Your task to perform on an android device: find snoozed emails in the gmail app Image 0: 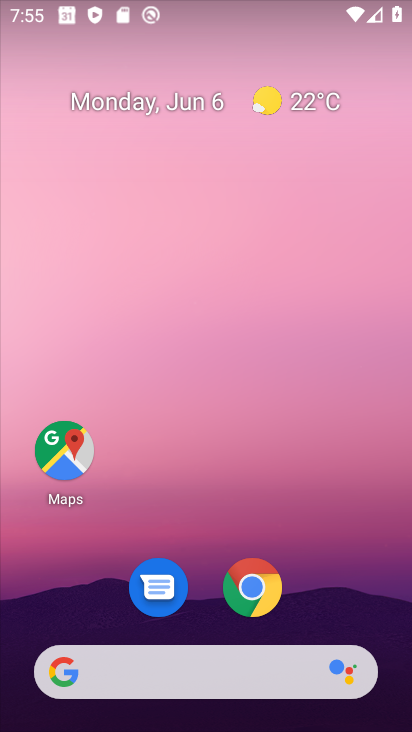
Step 0: drag from (137, 651) to (149, 292)
Your task to perform on an android device: find snoozed emails in the gmail app Image 1: 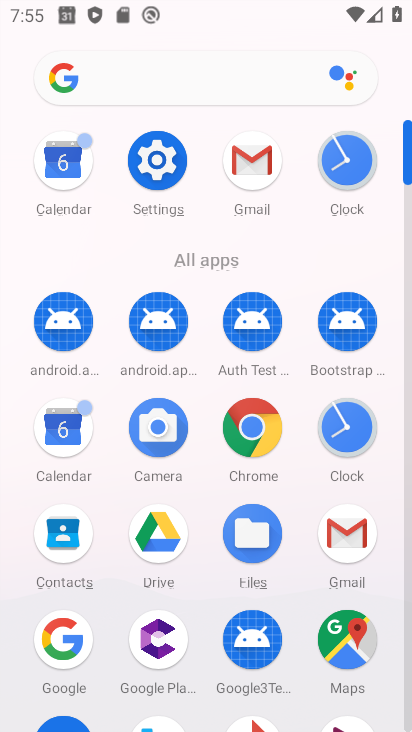
Step 1: click (258, 177)
Your task to perform on an android device: find snoozed emails in the gmail app Image 2: 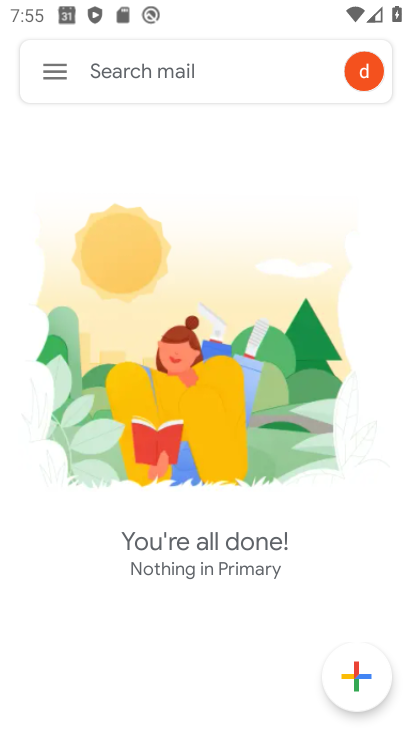
Step 2: click (44, 71)
Your task to perform on an android device: find snoozed emails in the gmail app Image 3: 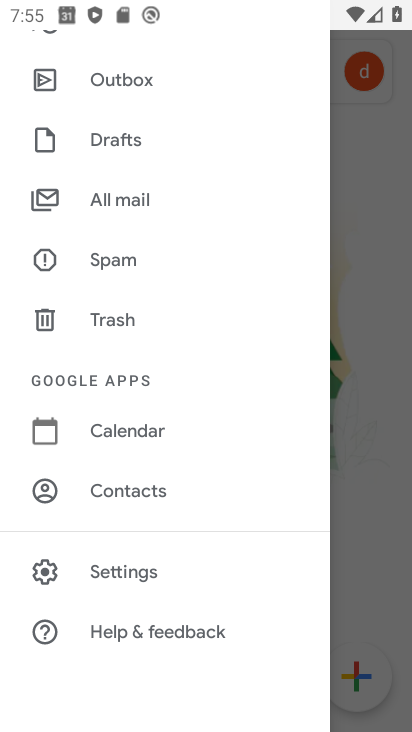
Step 3: drag from (138, 92) to (165, 485)
Your task to perform on an android device: find snoozed emails in the gmail app Image 4: 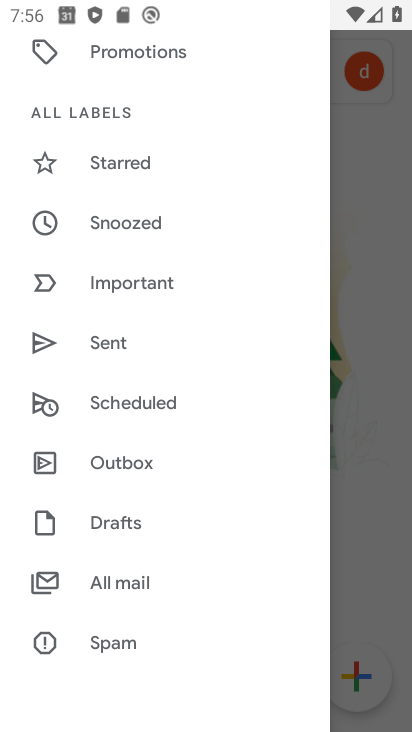
Step 4: click (133, 227)
Your task to perform on an android device: find snoozed emails in the gmail app Image 5: 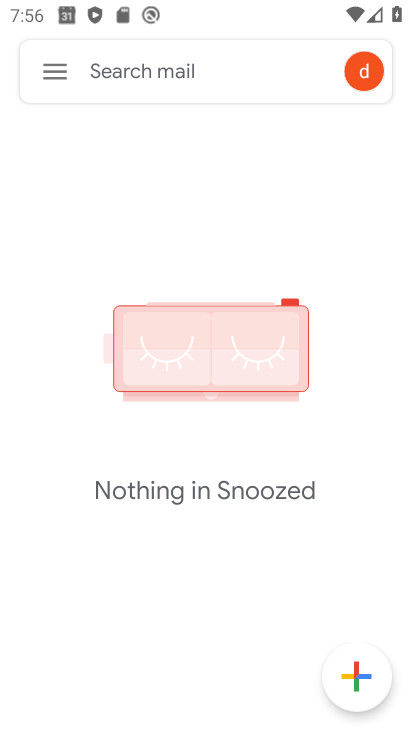
Step 5: task complete